Your task to perform on an android device: Open network settings Image 0: 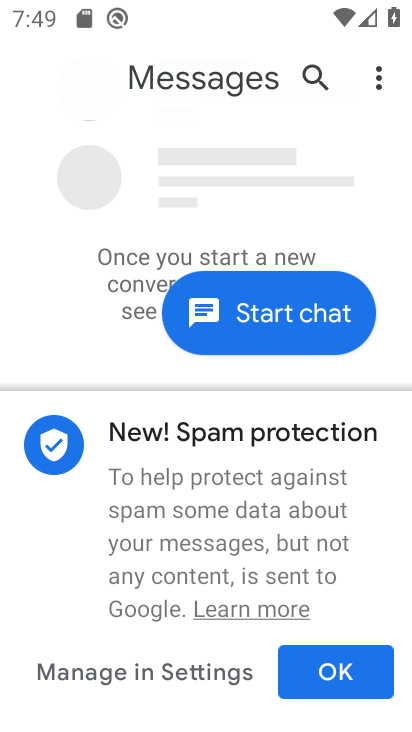
Step 0: press home button
Your task to perform on an android device: Open network settings Image 1: 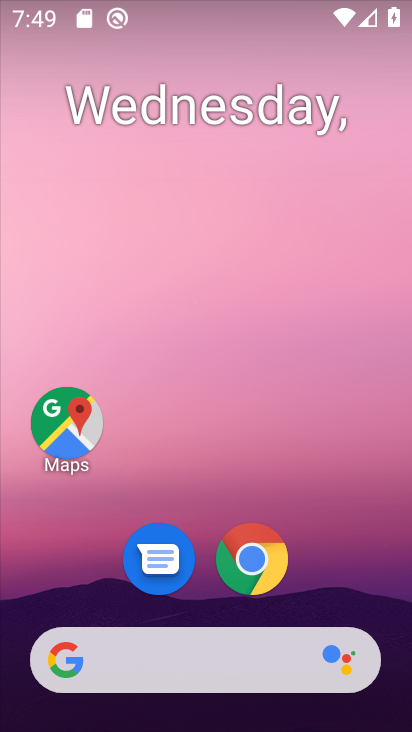
Step 1: drag from (369, 540) to (338, 177)
Your task to perform on an android device: Open network settings Image 2: 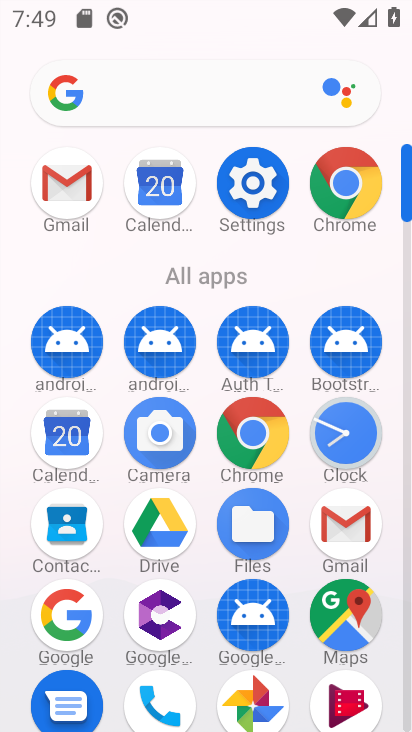
Step 2: click (267, 199)
Your task to perform on an android device: Open network settings Image 3: 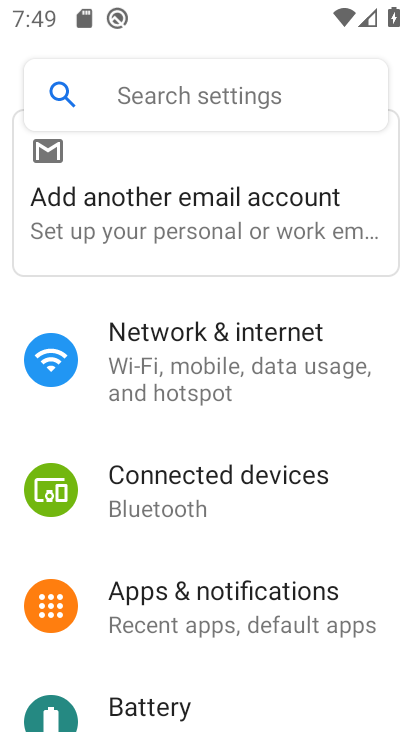
Step 3: click (274, 339)
Your task to perform on an android device: Open network settings Image 4: 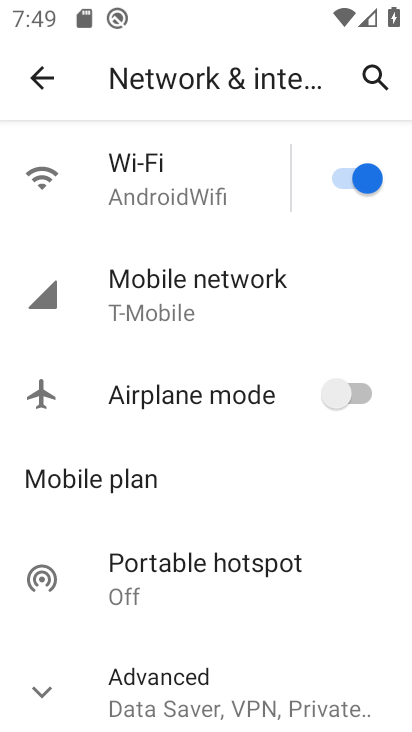
Step 4: click (248, 283)
Your task to perform on an android device: Open network settings Image 5: 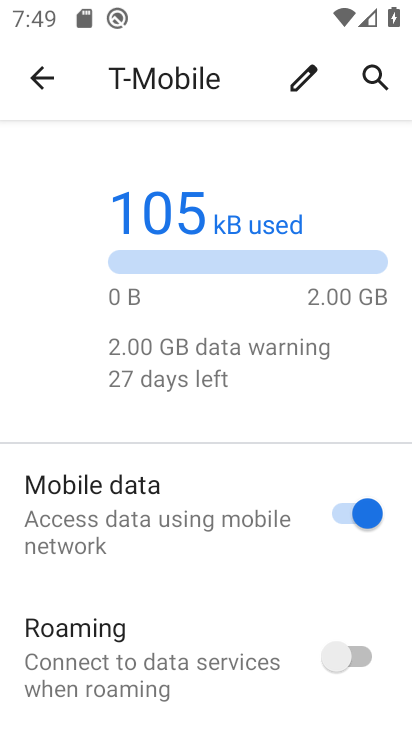
Step 5: task complete